Your task to perform on an android device: Open the phone app and click the voicemail tab. Image 0: 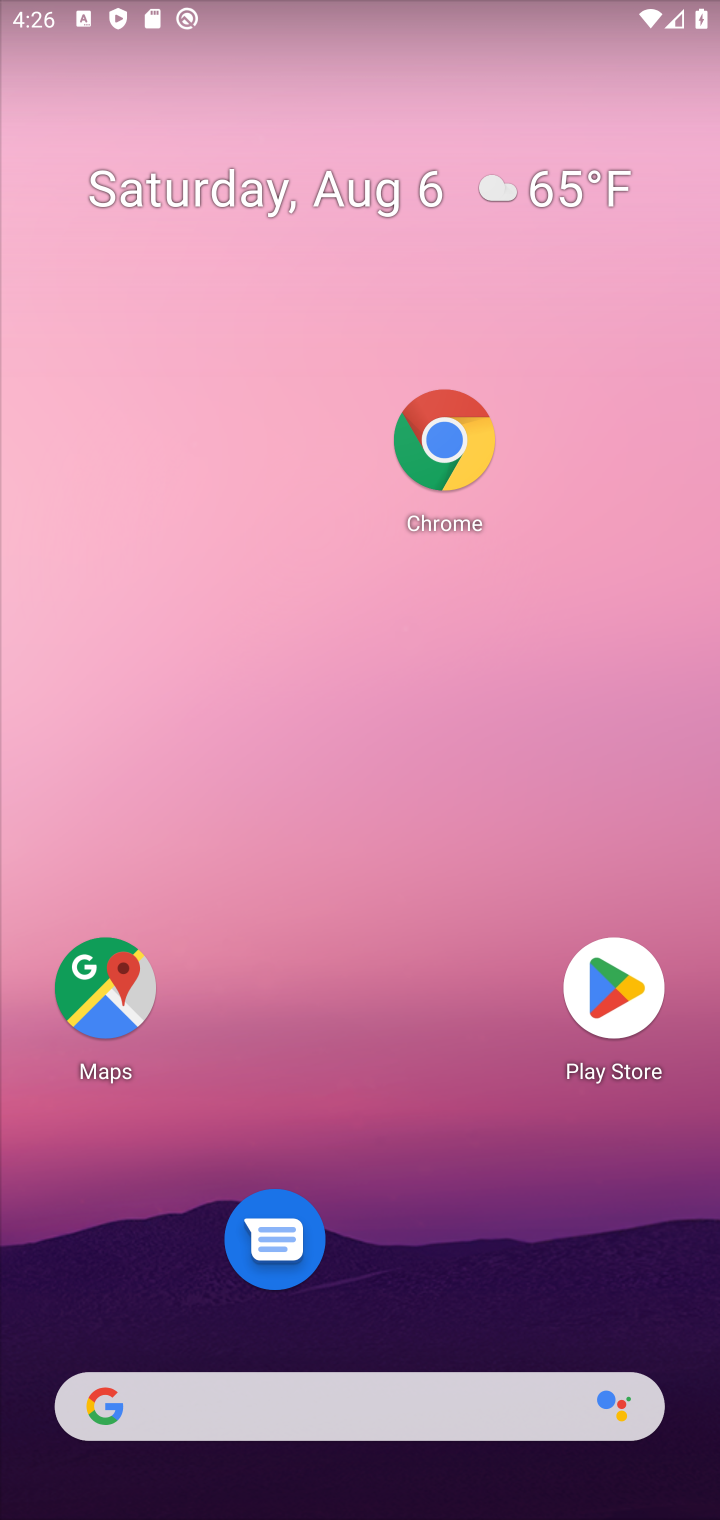
Step 0: drag from (412, 1381) to (546, 40)
Your task to perform on an android device: Open the phone app and click the voicemail tab. Image 1: 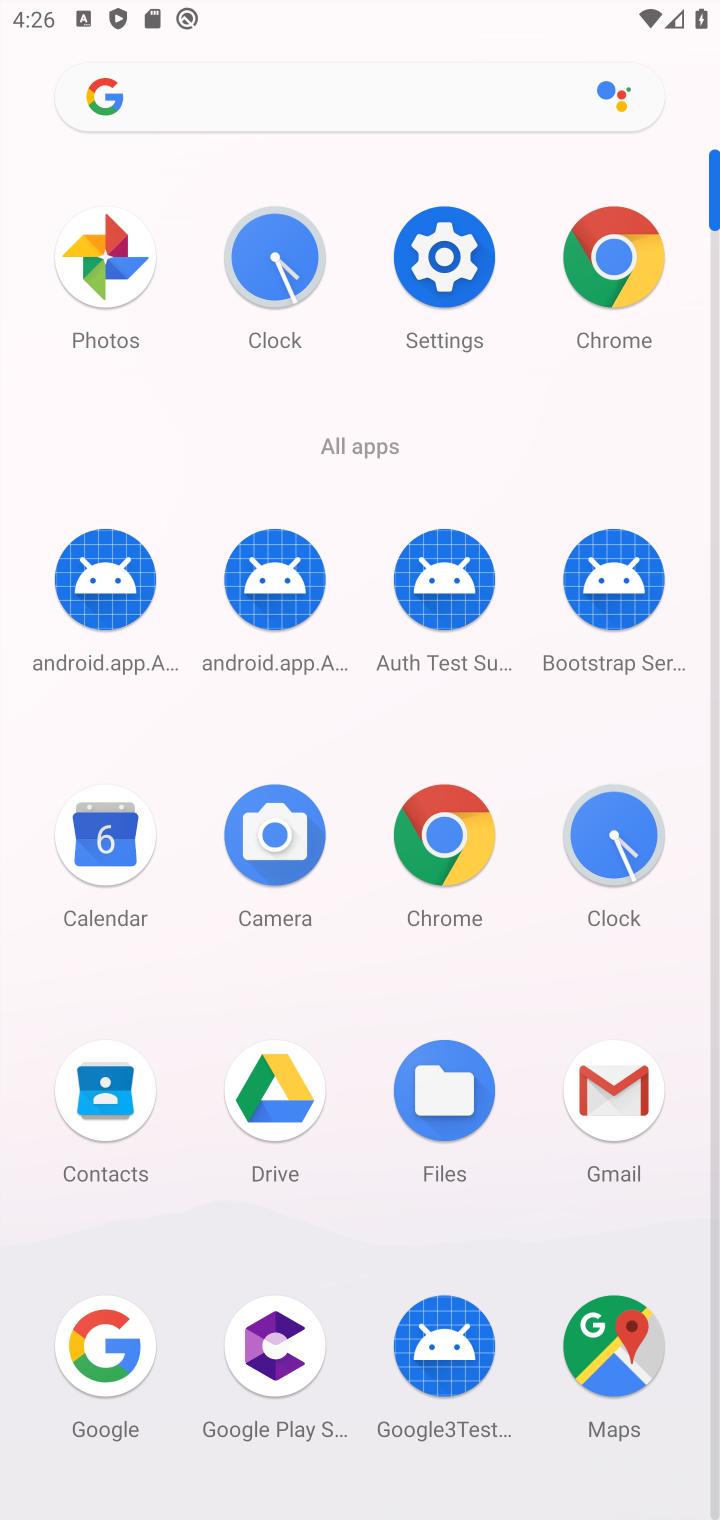
Step 1: drag from (508, 1251) to (650, 498)
Your task to perform on an android device: Open the phone app and click the voicemail tab. Image 2: 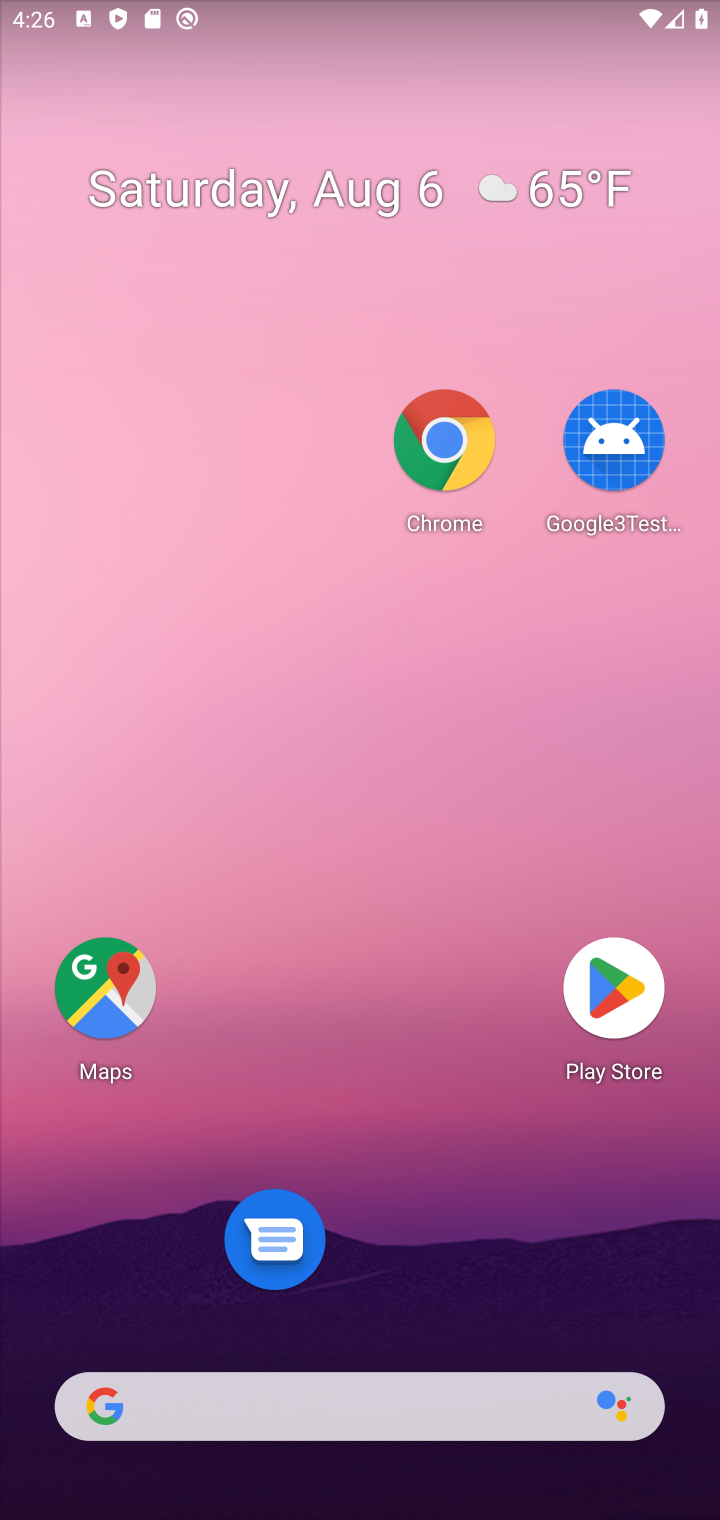
Step 2: drag from (472, 1312) to (591, 168)
Your task to perform on an android device: Open the phone app and click the voicemail tab. Image 3: 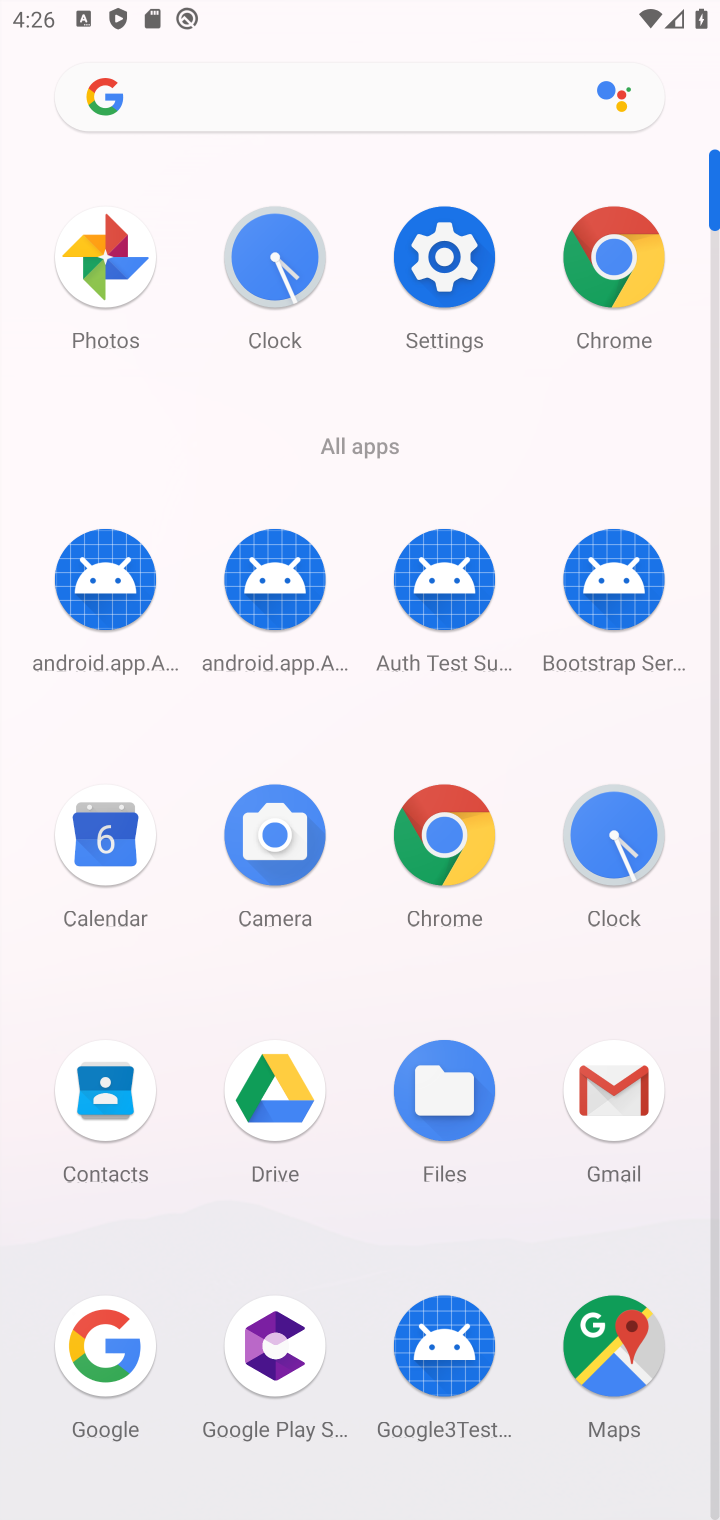
Step 3: drag from (182, 1354) to (206, 447)
Your task to perform on an android device: Open the phone app and click the voicemail tab. Image 4: 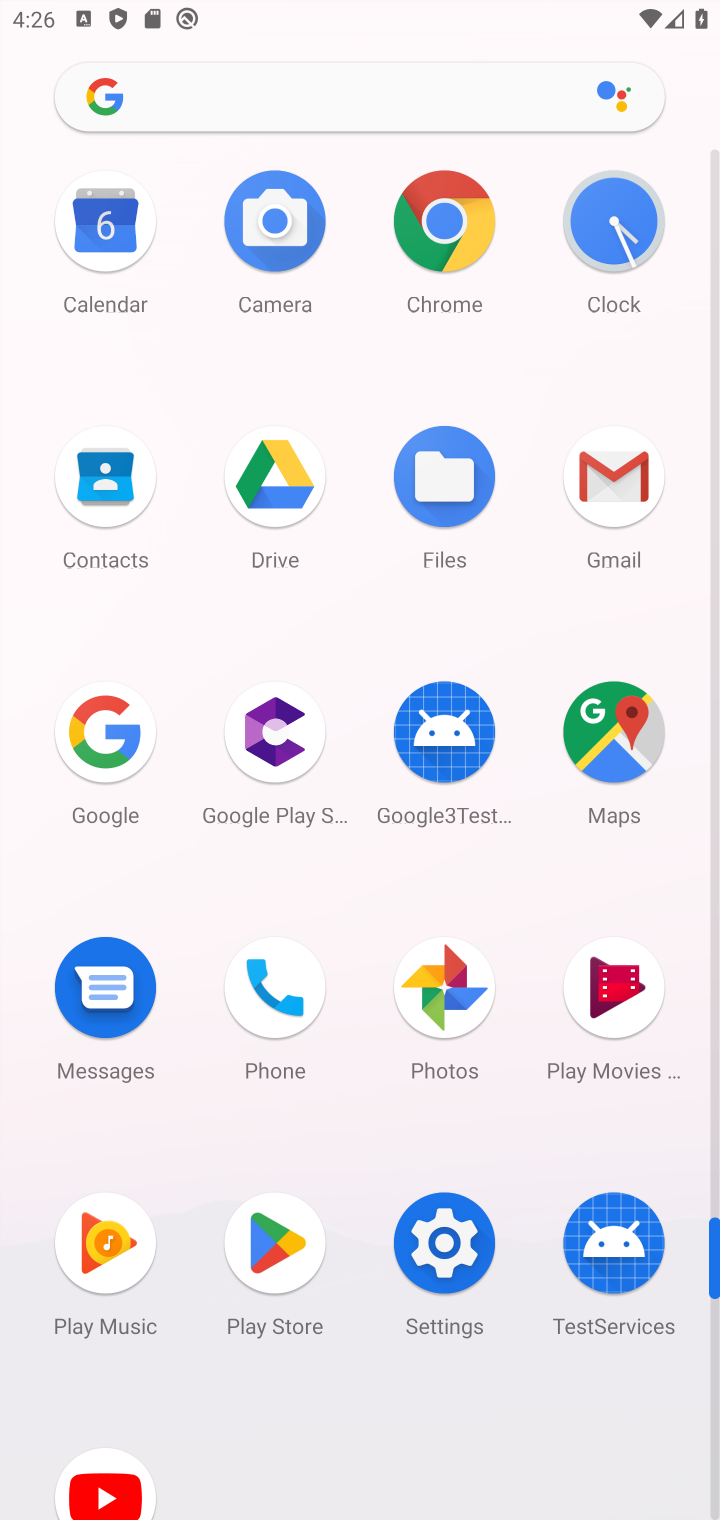
Step 4: click (285, 997)
Your task to perform on an android device: Open the phone app and click the voicemail tab. Image 5: 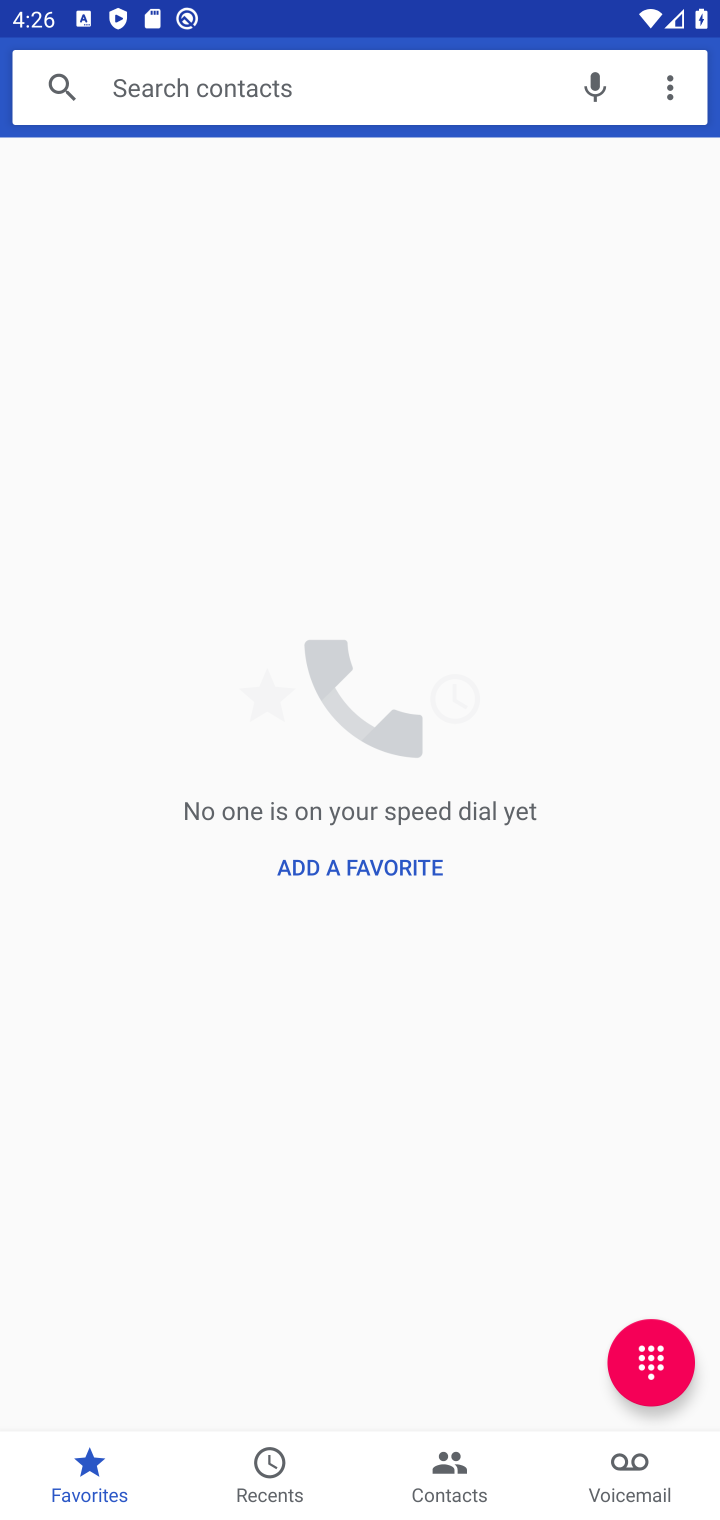
Step 5: click (639, 1485)
Your task to perform on an android device: Open the phone app and click the voicemail tab. Image 6: 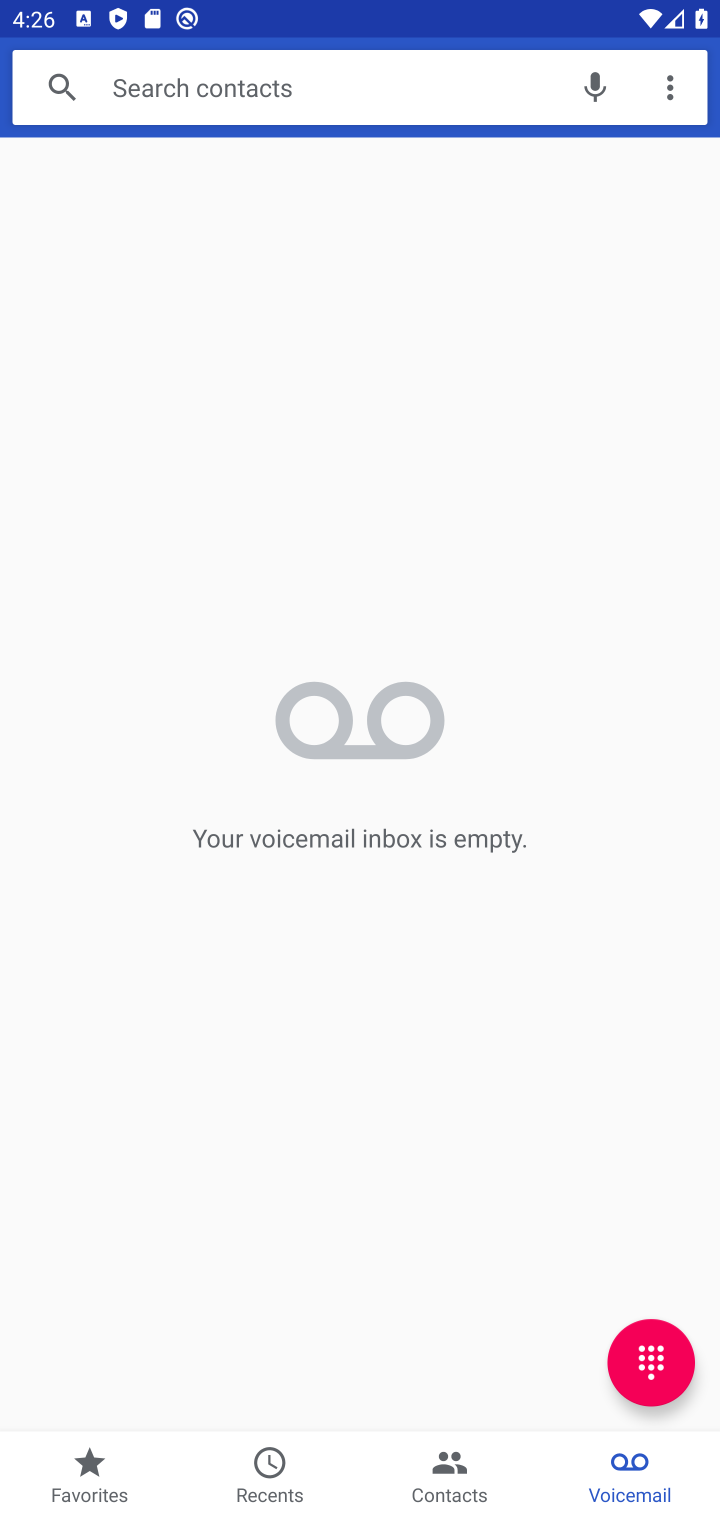
Step 6: task complete